Your task to perform on an android device: change alarm snooze length Image 0: 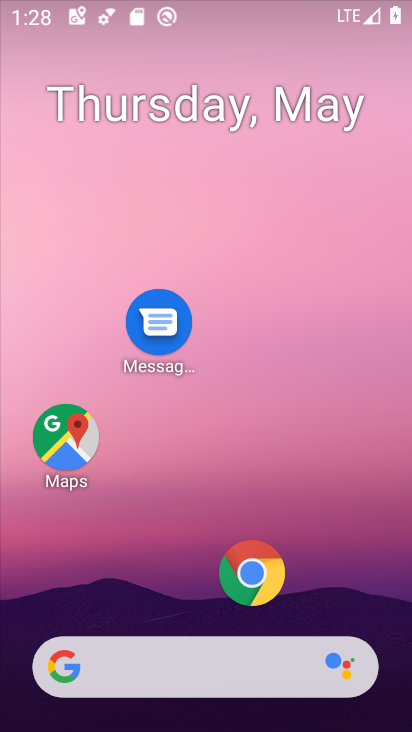
Step 0: drag from (203, 579) to (262, 100)
Your task to perform on an android device: change alarm snooze length Image 1: 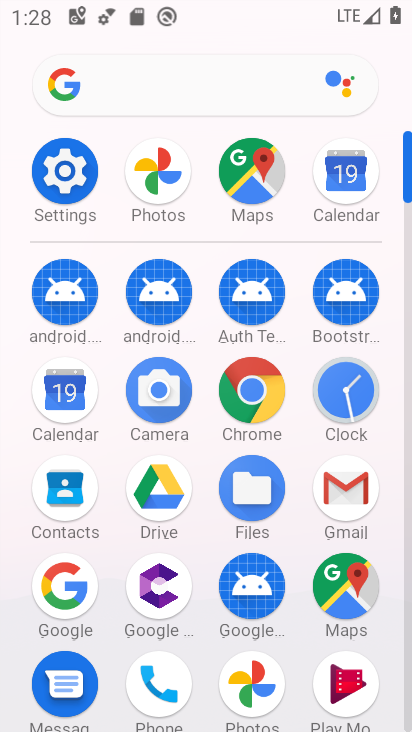
Step 1: click (348, 386)
Your task to perform on an android device: change alarm snooze length Image 2: 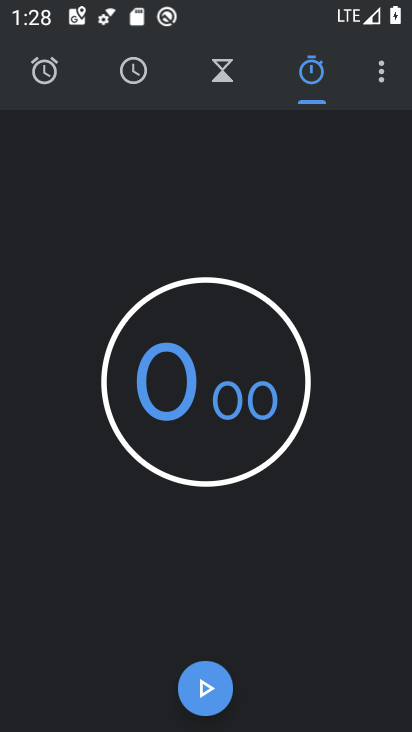
Step 2: click (385, 81)
Your task to perform on an android device: change alarm snooze length Image 3: 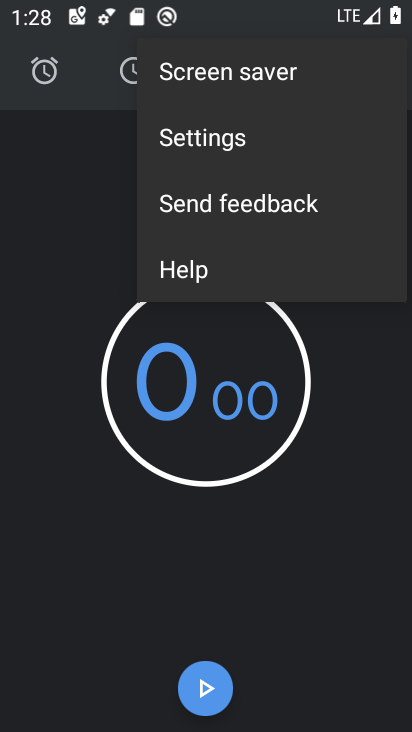
Step 3: click (190, 142)
Your task to perform on an android device: change alarm snooze length Image 4: 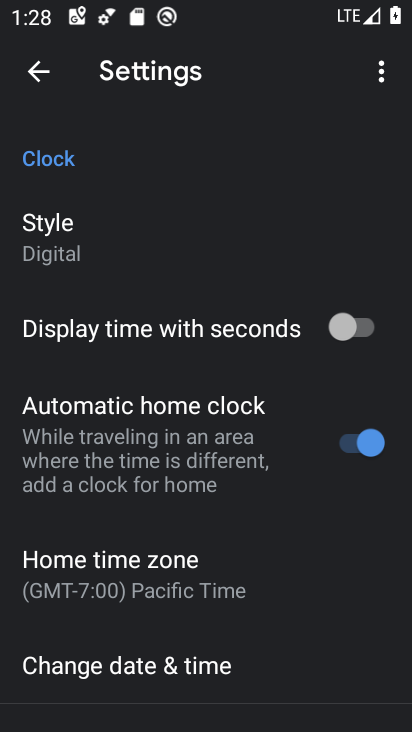
Step 4: drag from (242, 589) to (255, 238)
Your task to perform on an android device: change alarm snooze length Image 5: 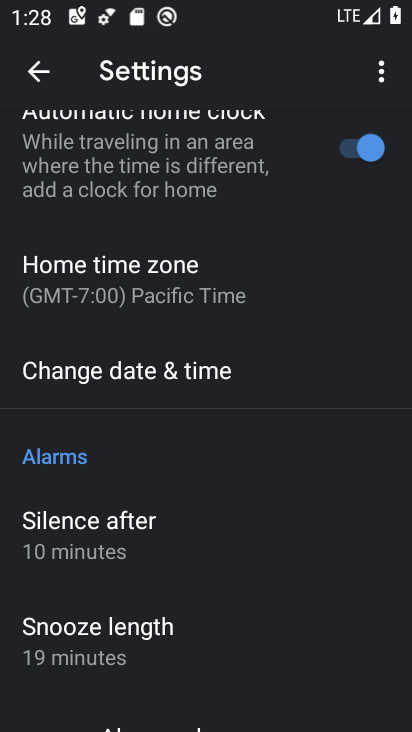
Step 5: drag from (183, 584) to (266, 244)
Your task to perform on an android device: change alarm snooze length Image 6: 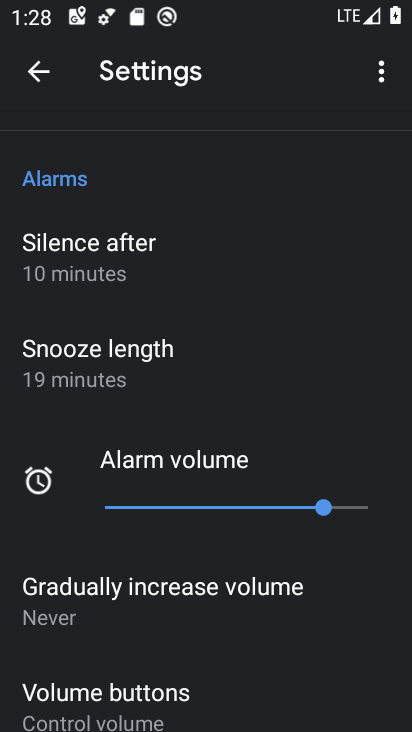
Step 6: click (126, 358)
Your task to perform on an android device: change alarm snooze length Image 7: 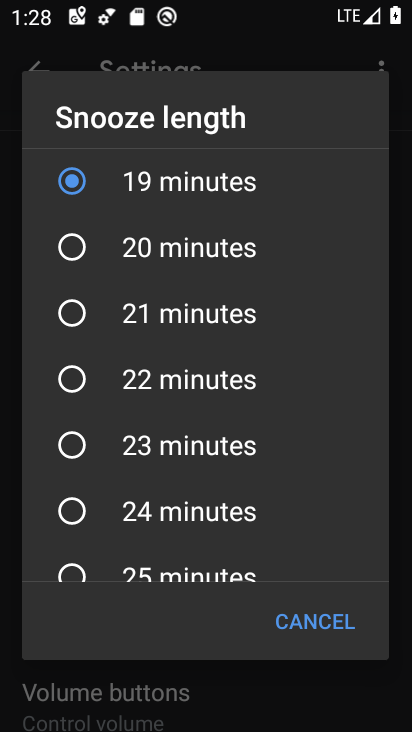
Step 7: click (138, 519)
Your task to perform on an android device: change alarm snooze length Image 8: 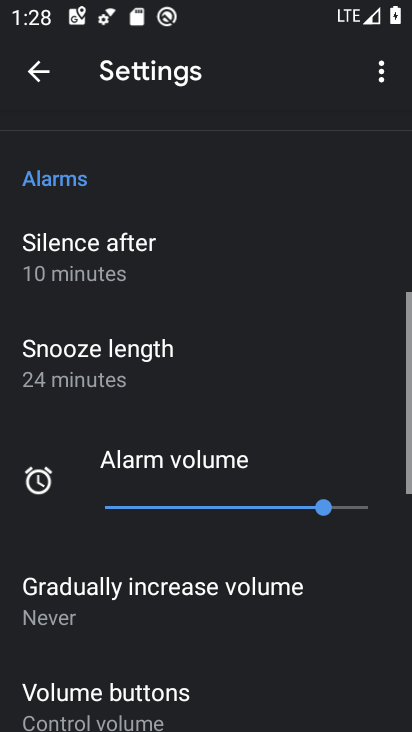
Step 8: task complete